Your task to perform on an android device: Go to battery settings Image 0: 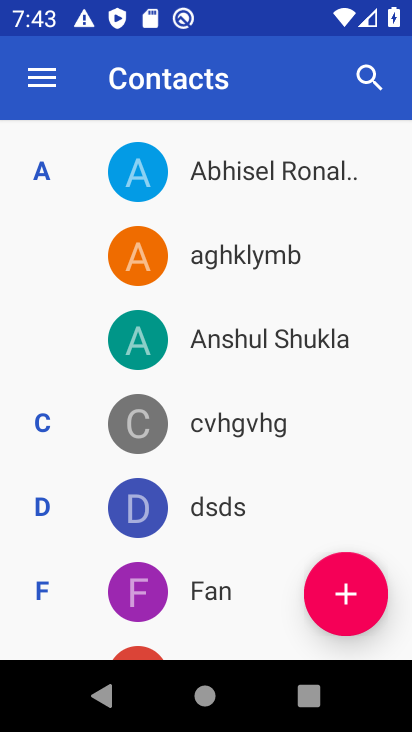
Step 0: press home button
Your task to perform on an android device: Go to battery settings Image 1: 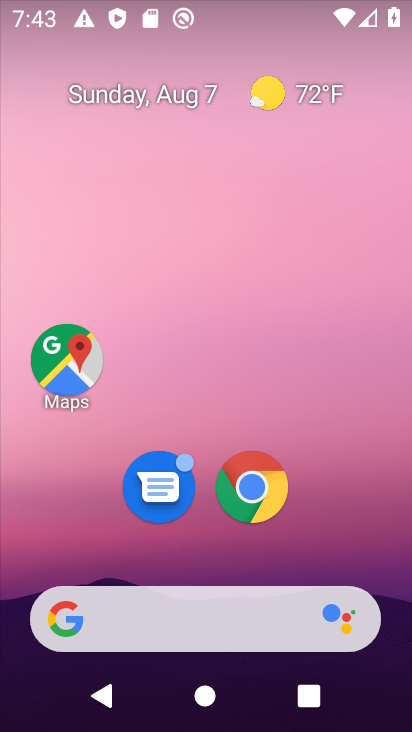
Step 1: drag from (379, 724) to (293, 3)
Your task to perform on an android device: Go to battery settings Image 2: 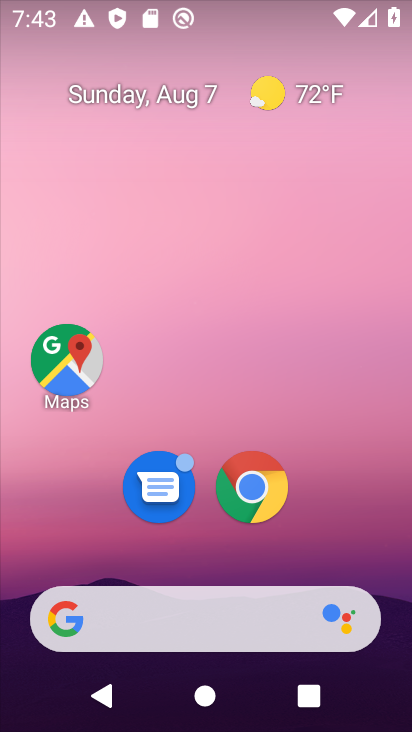
Step 2: drag from (386, 699) to (341, 311)
Your task to perform on an android device: Go to battery settings Image 3: 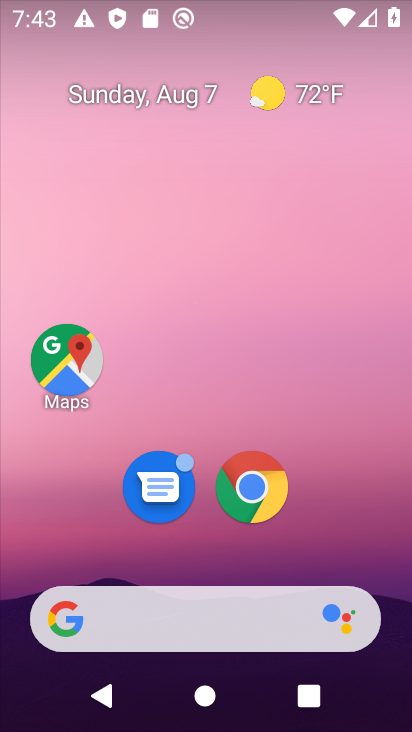
Step 3: drag from (379, 726) to (314, 121)
Your task to perform on an android device: Go to battery settings Image 4: 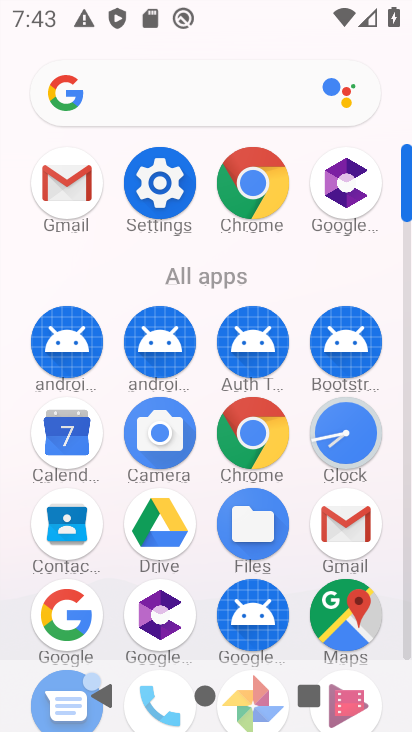
Step 4: click (157, 184)
Your task to perform on an android device: Go to battery settings Image 5: 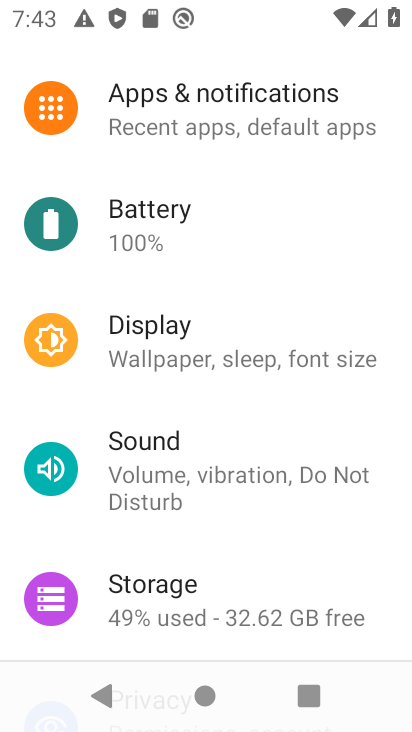
Step 5: click (170, 213)
Your task to perform on an android device: Go to battery settings Image 6: 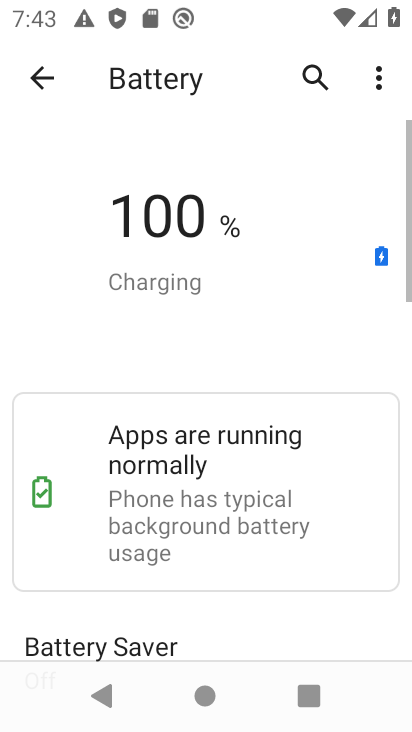
Step 6: task complete